Your task to perform on an android device: install app "LiveIn - Share Your Moment" Image 0: 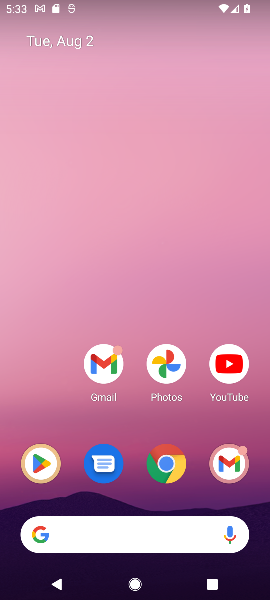
Step 0: press home button
Your task to perform on an android device: install app "LiveIn - Share Your Moment" Image 1: 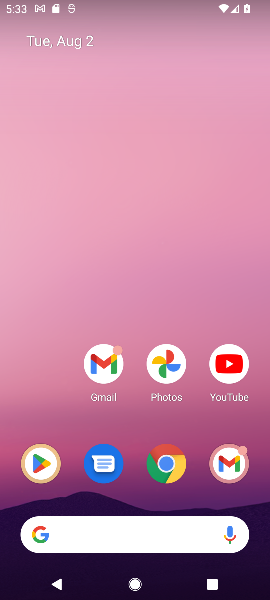
Step 1: click (40, 453)
Your task to perform on an android device: install app "LiveIn - Share Your Moment" Image 2: 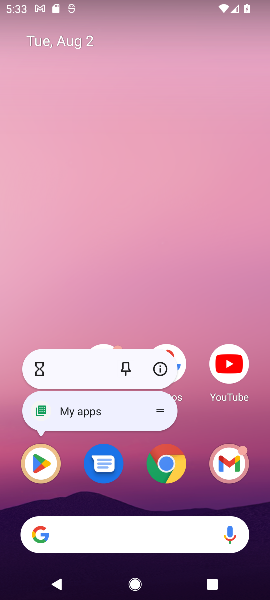
Step 2: click (38, 458)
Your task to perform on an android device: install app "LiveIn - Share Your Moment" Image 3: 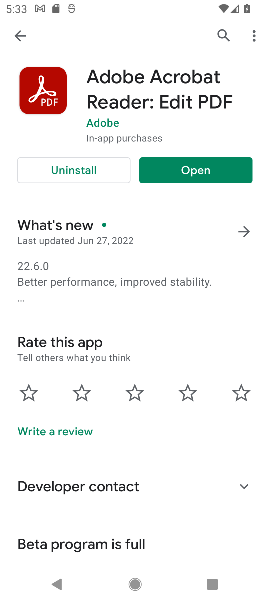
Step 3: click (219, 32)
Your task to perform on an android device: install app "LiveIn - Share Your Moment" Image 4: 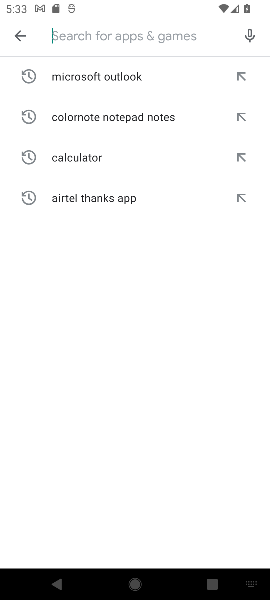
Step 4: type "LiveIn - Share Your Moment"
Your task to perform on an android device: install app "LiveIn - Share Your Moment" Image 5: 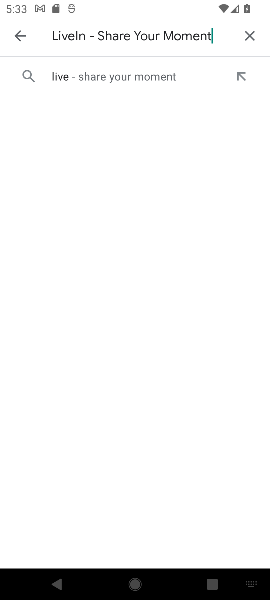
Step 5: click (137, 75)
Your task to perform on an android device: install app "LiveIn - Share Your Moment" Image 6: 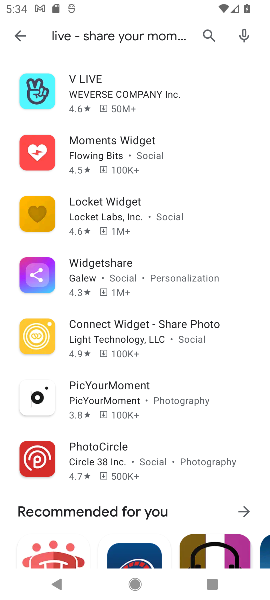
Step 6: task complete